Your task to perform on an android device: change timer sound Image 0: 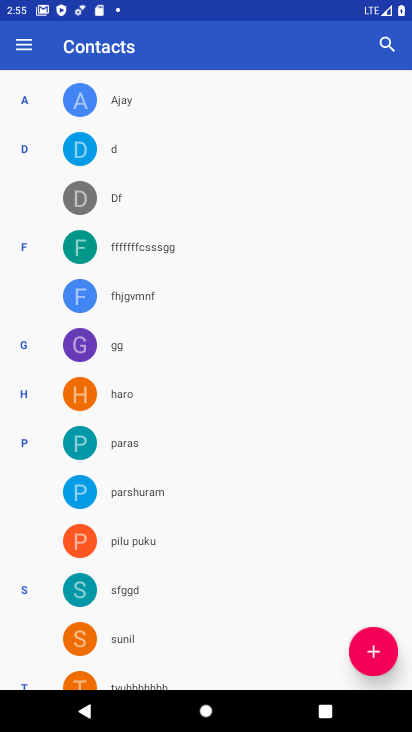
Step 0: press home button
Your task to perform on an android device: change timer sound Image 1: 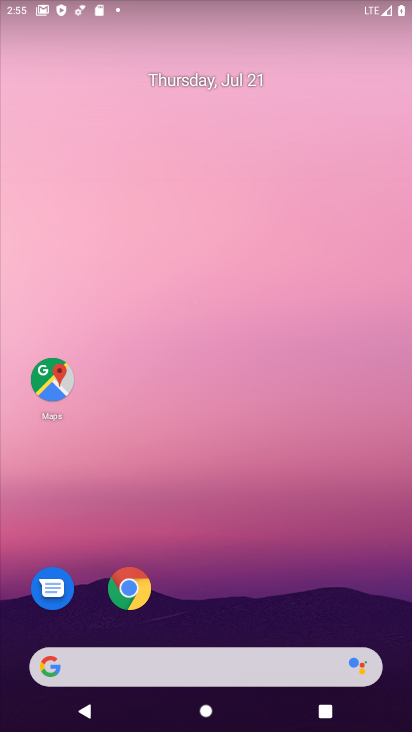
Step 1: drag from (253, 552) to (258, 113)
Your task to perform on an android device: change timer sound Image 2: 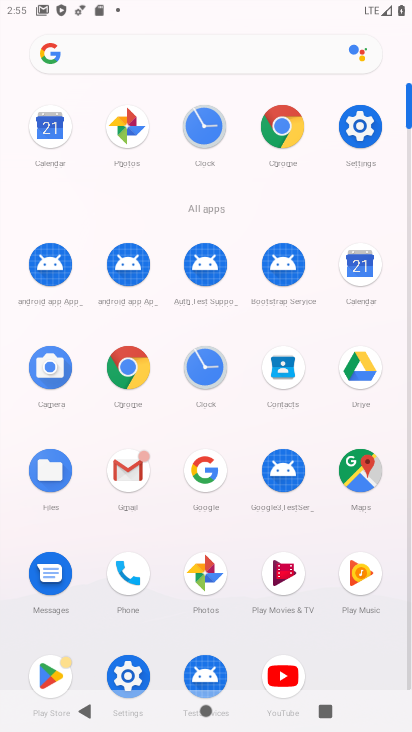
Step 2: click (201, 372)
Your task to perform on an android device: change timer sound Image 3: 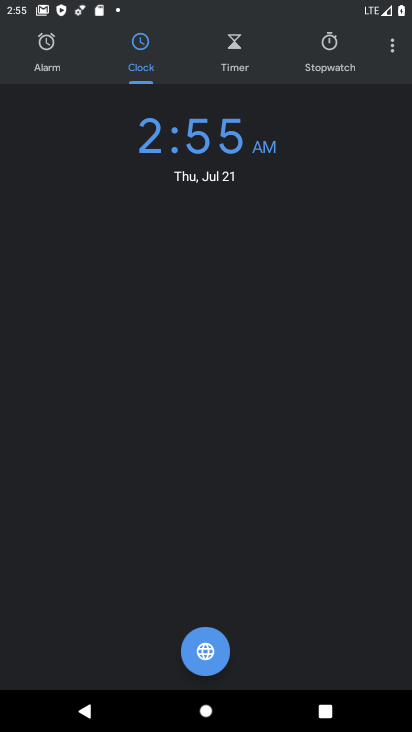
Step 3: click (397, 56)
Your task to perform on an android device: change timer sound Image 4: 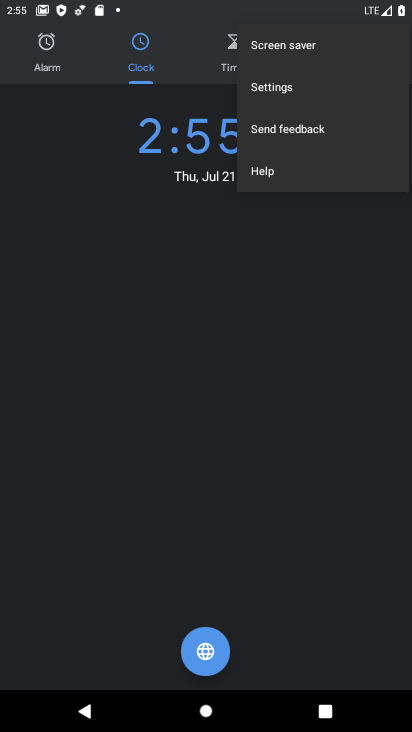
Step 4: click (266, 95)
Your task to perform on an android device: change timer sound Image 5: 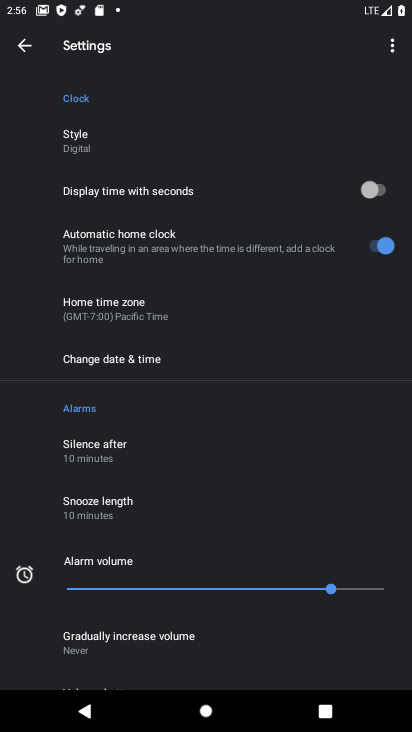
Step 5: drag from (151, 518) to (139, 225)
Your task to perform on an android device: change timer sound Image 6: 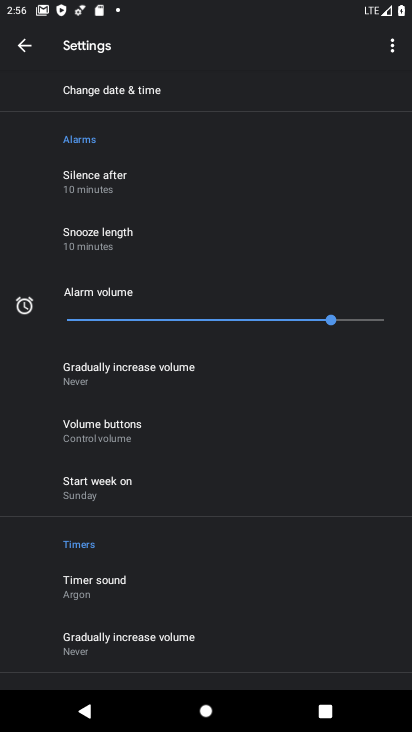
Step 6: click (140, 597)
Your task to perform on an android device: change timer sound Image 7: 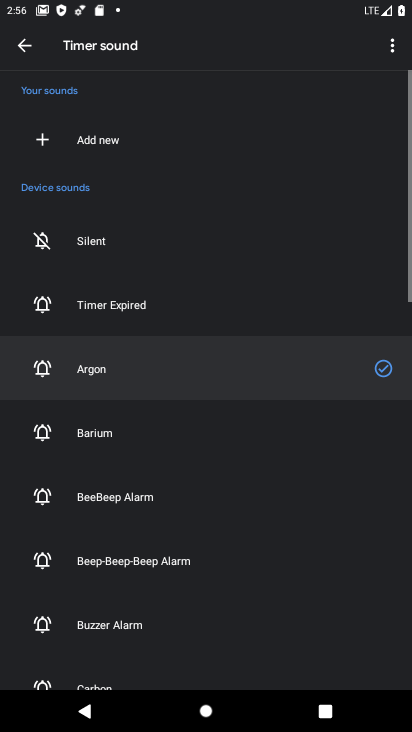
Step 7: click (144, 500)
Your task to perform on an android device: change timer sound Image 8: 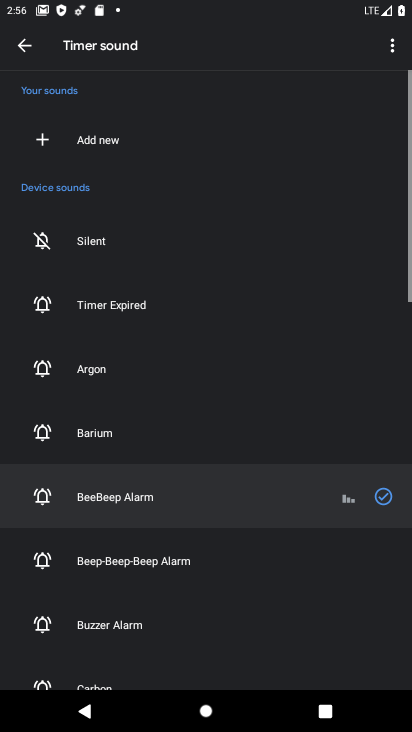
Step 8: task complete